Your task to perform on an android device: Open Amazon Image 0: 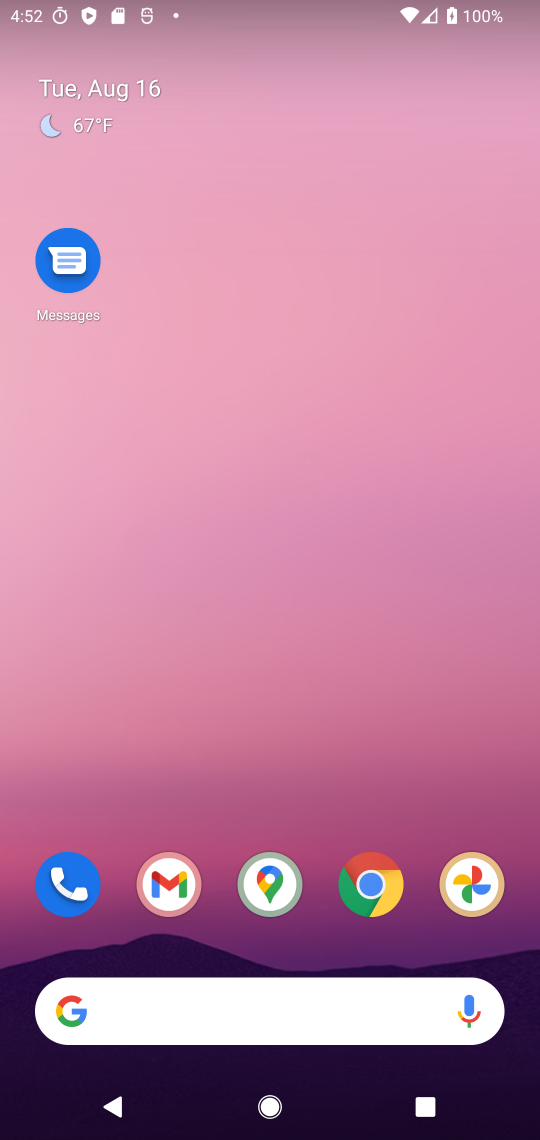
Step 0: click (189, 1010)
Your task to perform on an android device: Open Amazon Image 1: 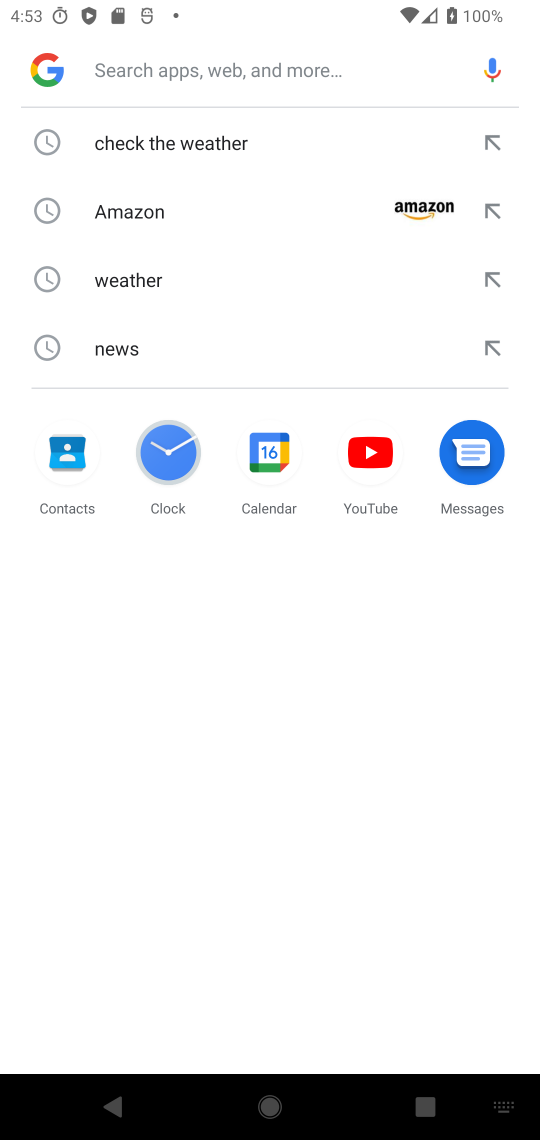
Step 1: click (118, 210)
Your task to perform on an android device: Open Amazon Image 2: 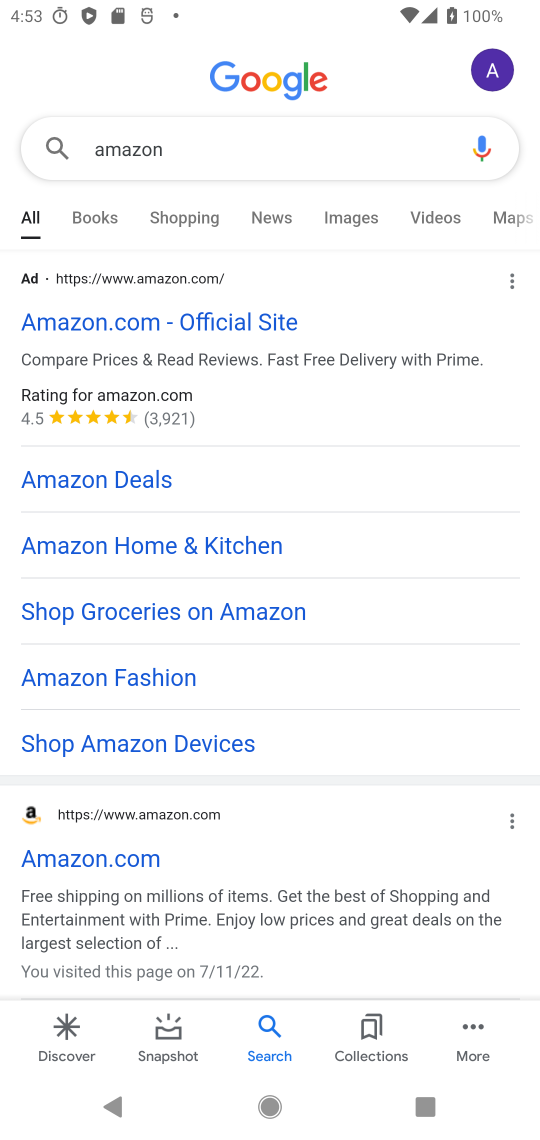
Step 2: task complete